Your task to perform on an android device: Is it going to rain this weekend? Image 0: 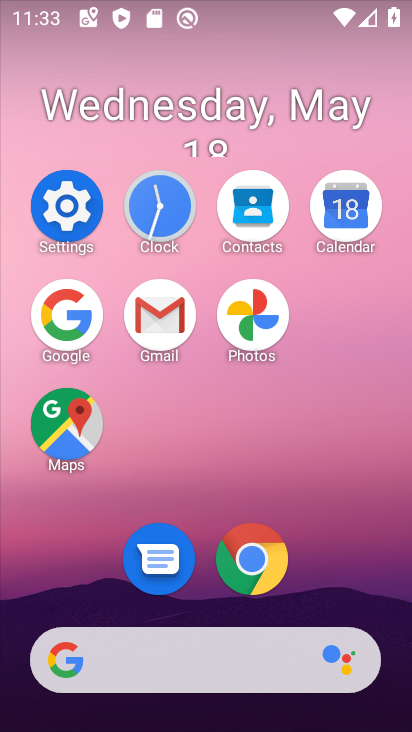
Step 0: click (79, 331)
Your task to perform on an android device: Is it going to rain this weekend? Image 1: 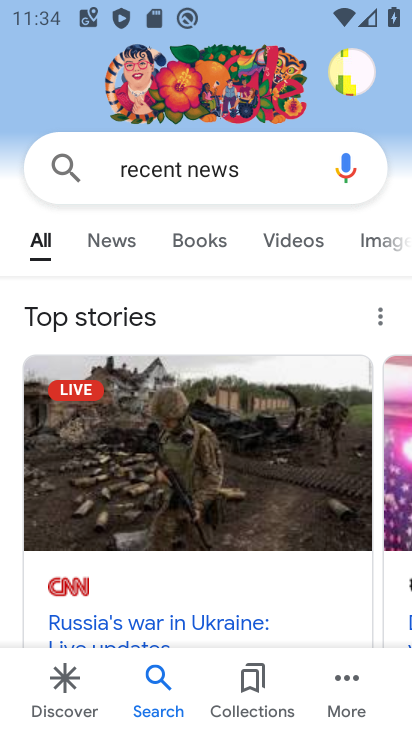
Step 1: click (254, 163)
Your task to perform on an android device: Is it going to rain this weekend? Image 2: 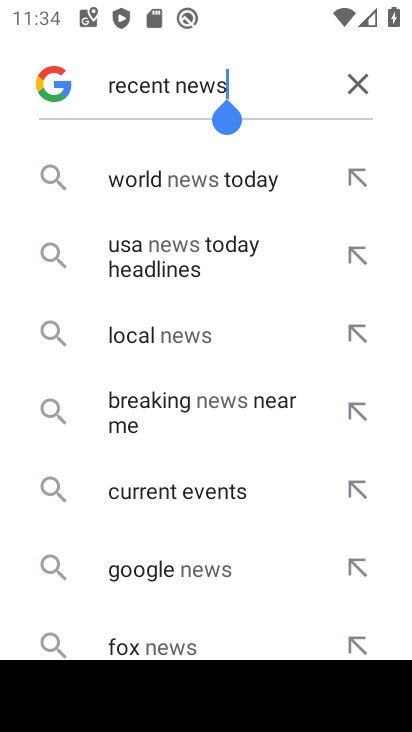
Step 2: click (349, 78)
Your task to perform on an android device: Is it going to rain this weekend? Image 3: 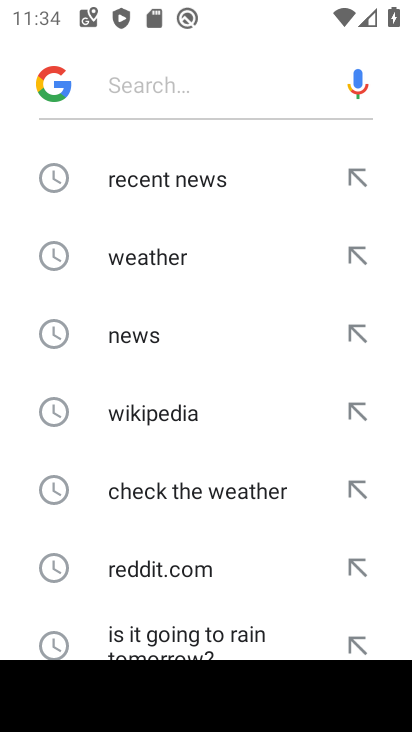
Step 3: click (194, 246)
Your task to perform on an android device: Is it going to rain this weekend? Image 4: 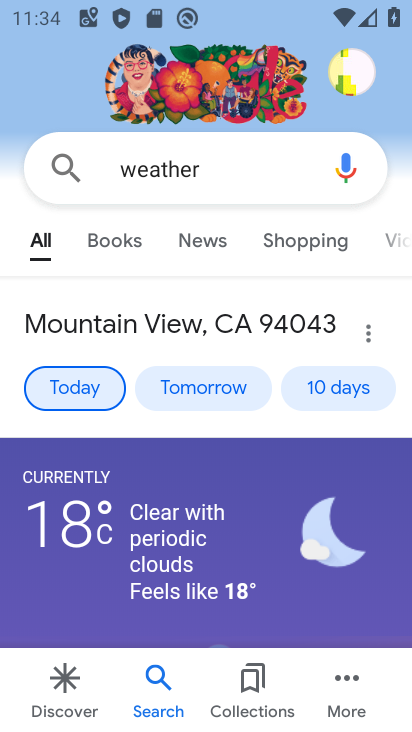
Step 4: click (341, 383)
Your task to perform on an android device: Is it going to rain this weekend? Image 5: 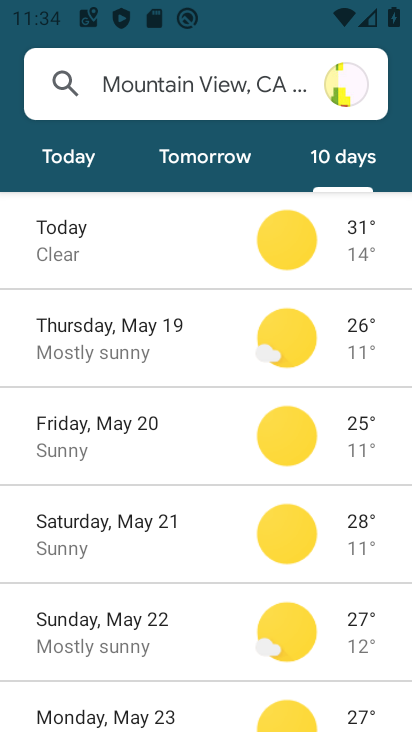
Step 5: click (160, 646)
Your task to perform on an android device: Is it going to rain this weekend? Image 6: 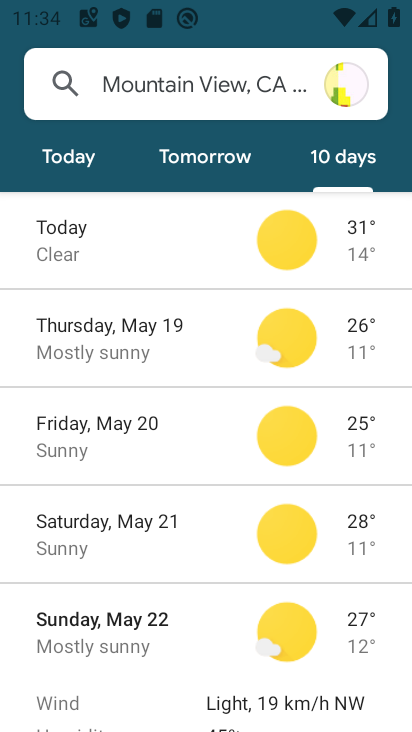
Step 6: task complete